Your task to perform on an android device: Search for Mexican restaurants on Maps Image 0: 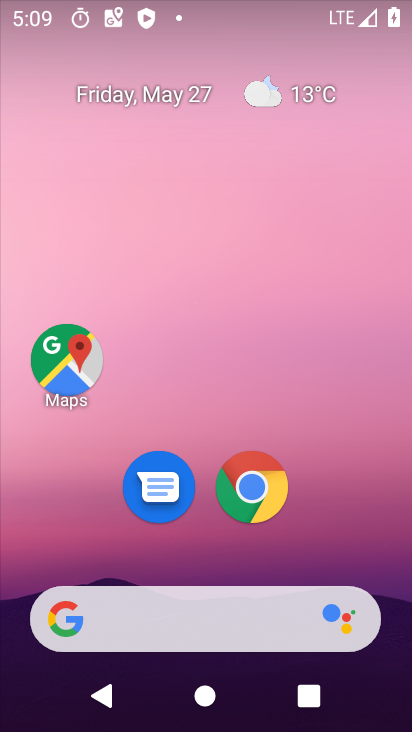
Step 0: click (343, 467)
Your task to perform on an android device: Search for Mexican restaurants on Maps Image 1: 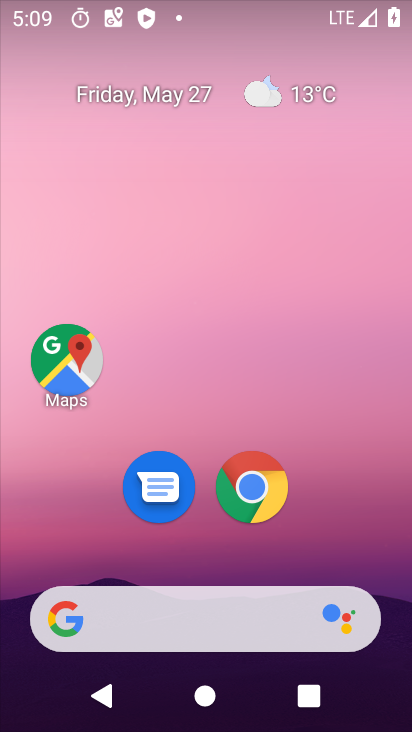
Step 1: click (61, 363)
Your task to perform on an android device: Search for Mexican restaurants on Maps Image 2: 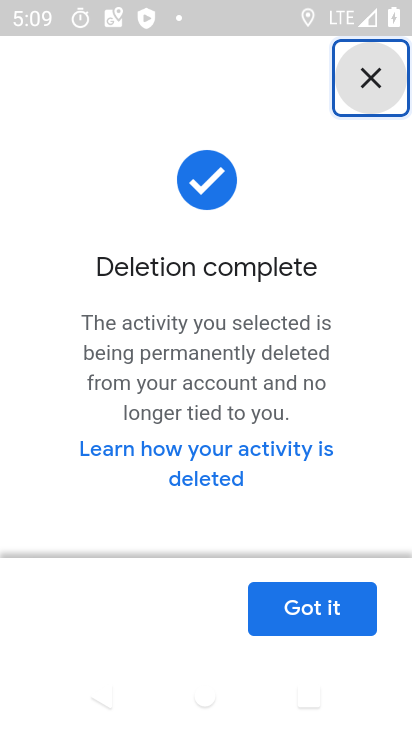
Step 2: click (386, 90)
Your task to perform on an android device: Search for Mexican restaurants on Maps Image 3: 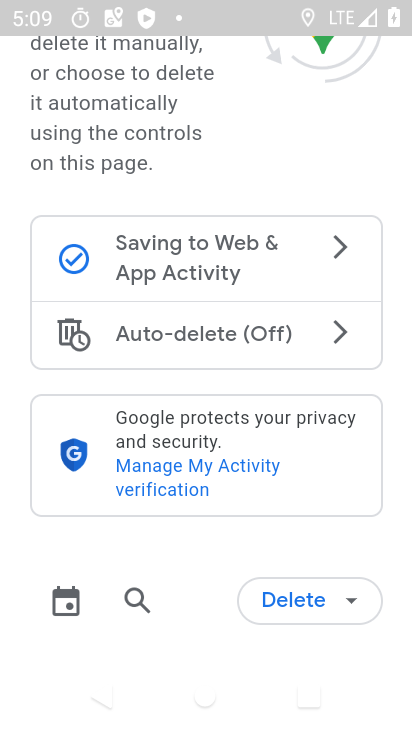
Step 3: drag from (225, 106) to (285, 518)
Your task to perform on an android device: Search for Mexican restaurants on Maps Image 4: 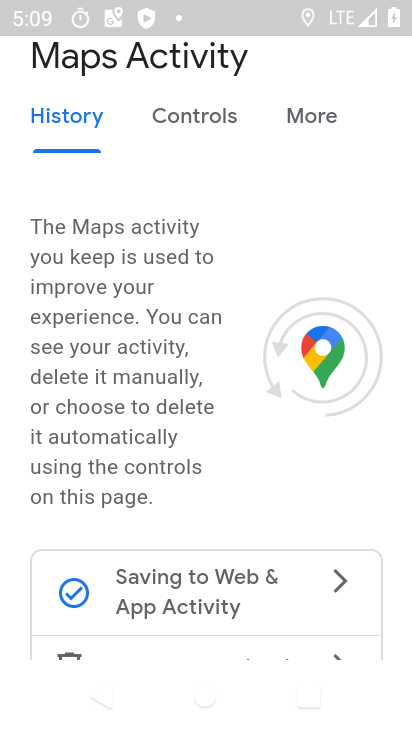
Step 4: press back button
Your task to perform on an android device: Search for Mexican restaurants on Maps Image 5: 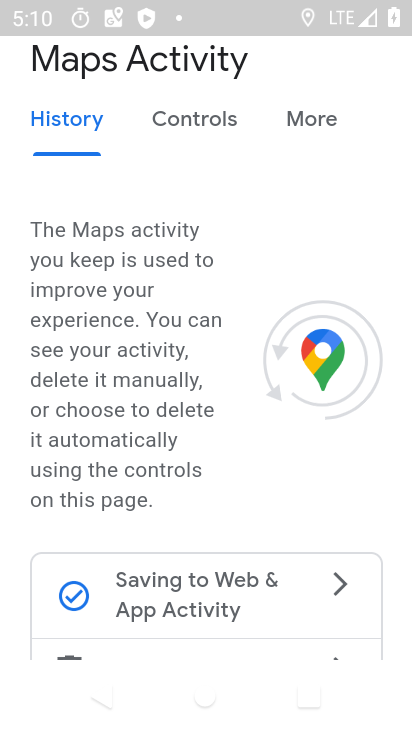
Step 5: press back button
Your task to perform on an android device: Search for Mexican restaurants on Maps Image 6: 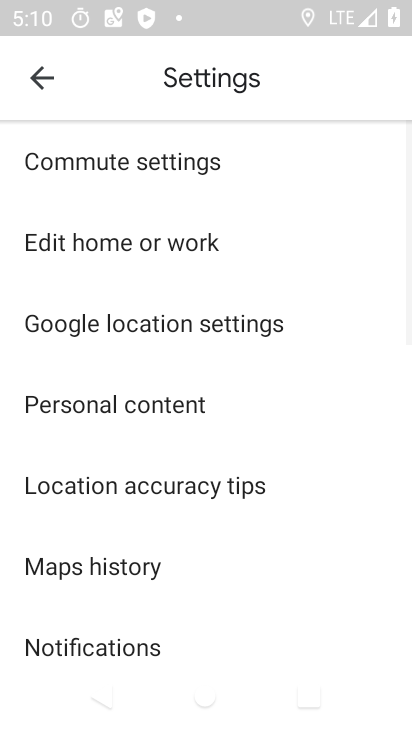
Step 6: click (50, 73)
Your task to perform on an android device: Search for Mexican restaurants on Maps Image 7: 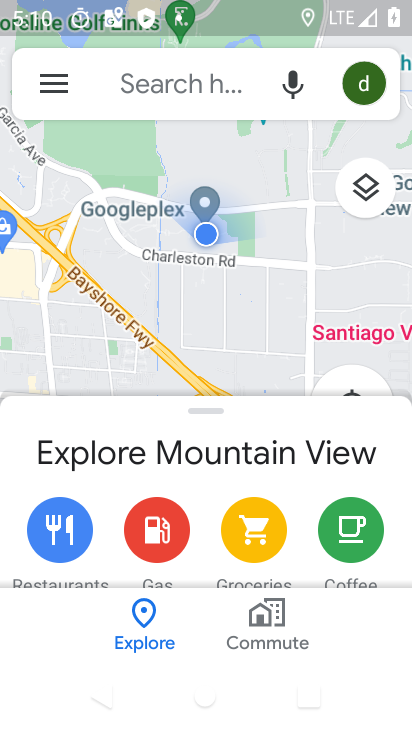
Step 7: click (207, 78)
Your task to perform on an android device: Search for Mexican restaurants on Maps Image 8: 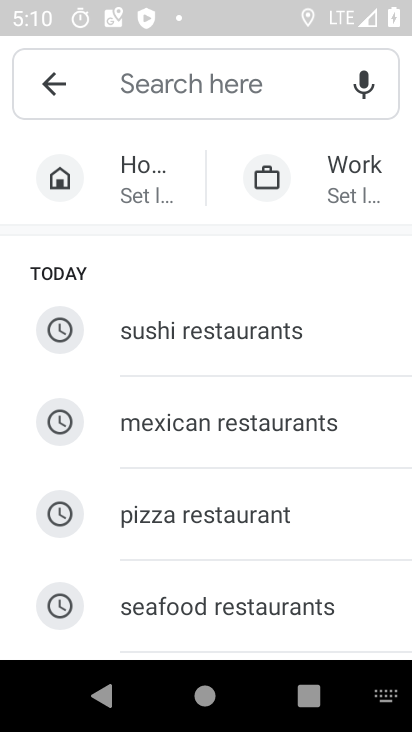
Step 8: click (349, 422)
Your task to perform on an android device: Search for Mexican restaurants on Maps Image 9: 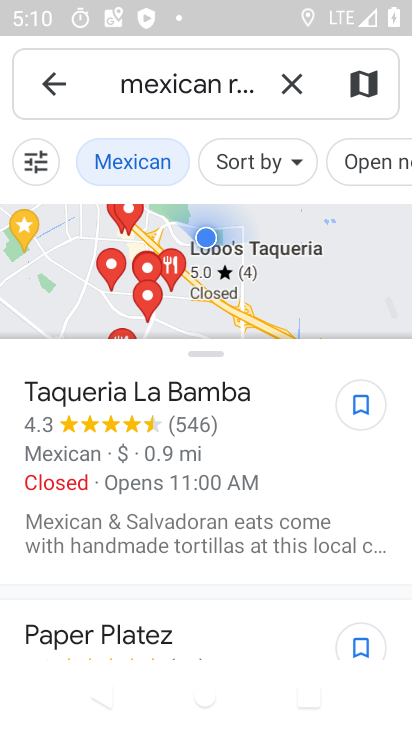
Step 9: task complete